Your task to perform on an android device: When is my next appointment? Image 0: 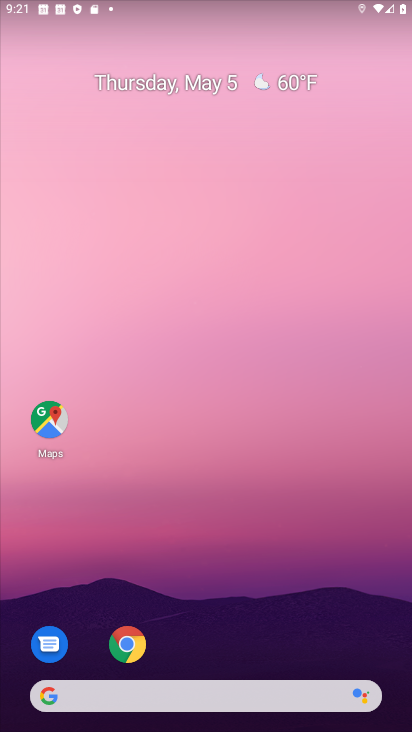
Step 0: drag from (242, 644) to (213, 0)
Your task to perform on an android device: When is my next appointment? Image 1: 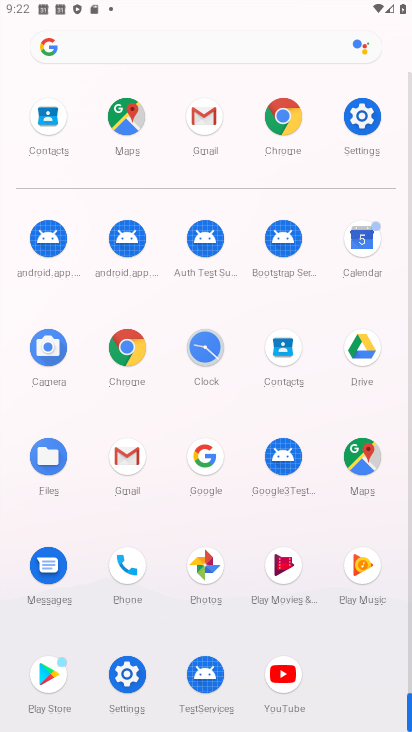
Step 1: click (353, 240)
Your task to perform on an android device: When is my next appointment? Image 2: 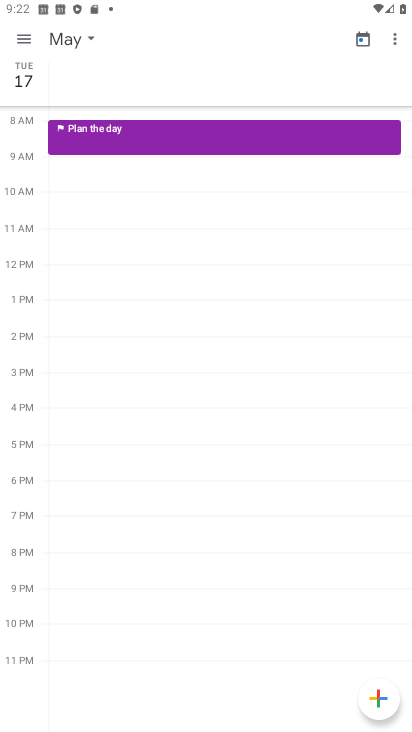
Step 2: click (73, 37)
Your task to perform on an android device: When is my next appointment? Image 3: 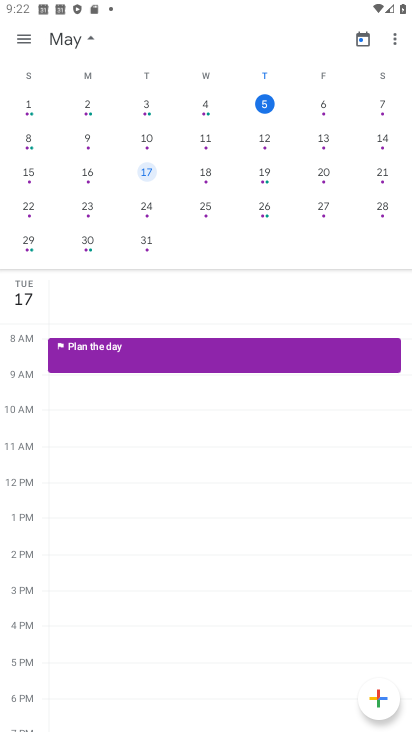
Step 3: click (266, 99)
Your task to perform on an android device: When is my next appointment? Image 4: 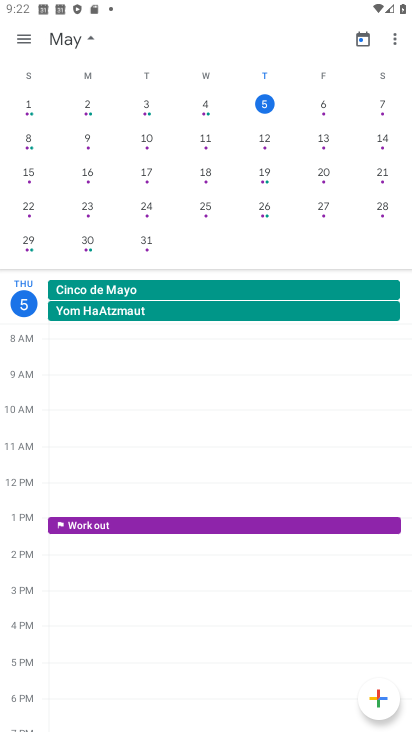
Step 4: click (115, 525)
Your task to perform on an android device: When is my next appointment? Image 5: 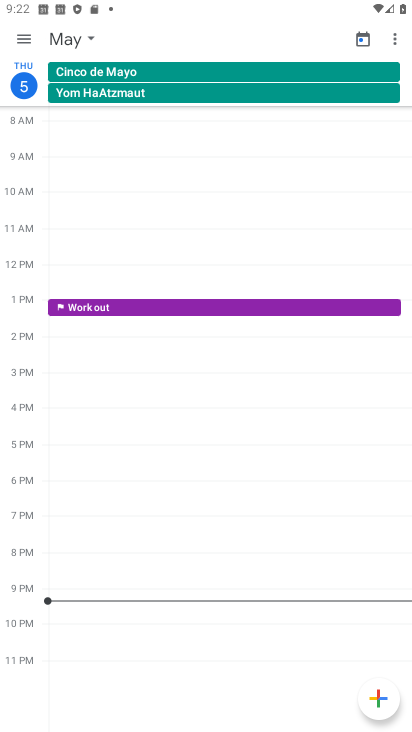
Step 5: click (71, 312)
Your task to perform on an android device: When is my next appointment? Image 6: 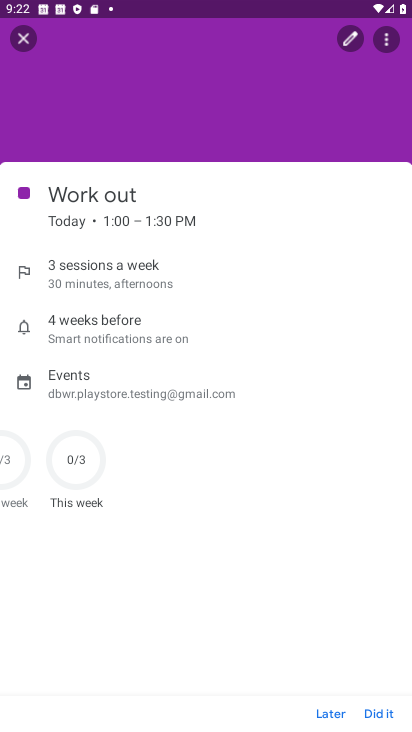
Step 6: task complete